Your task to perform on an android device: turn off data saver in the chrome app Image 0: 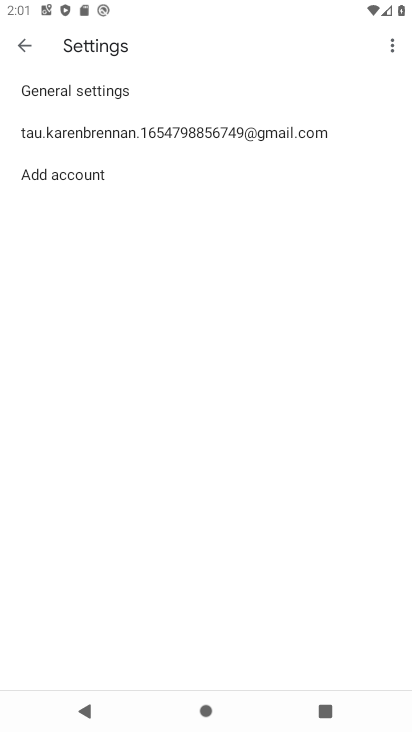
Step 0: press home button
Your task to perform on an android device: turn off data saver in the chrome app Image 1: 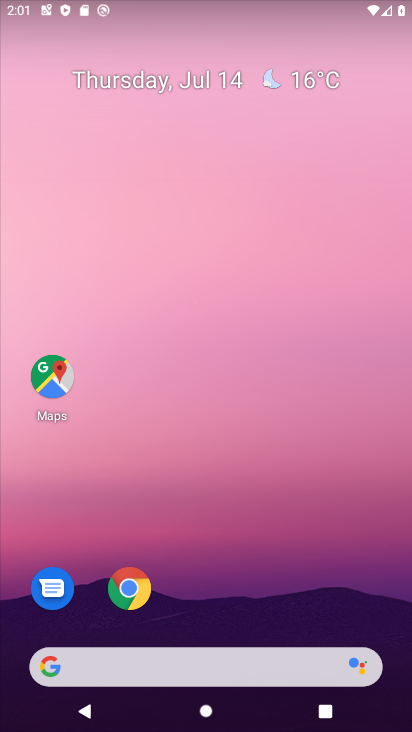
Step 1: click (154, 593)
Your task to perform on an android device: turn off data saver in the chrome app Image 2: 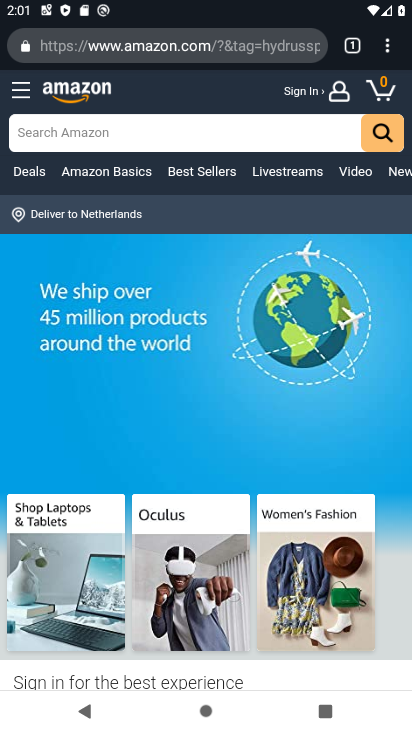
Step 2: click (391, 49)
Your task to perform on an android device: turn off data saver in the chrome app Image 3: 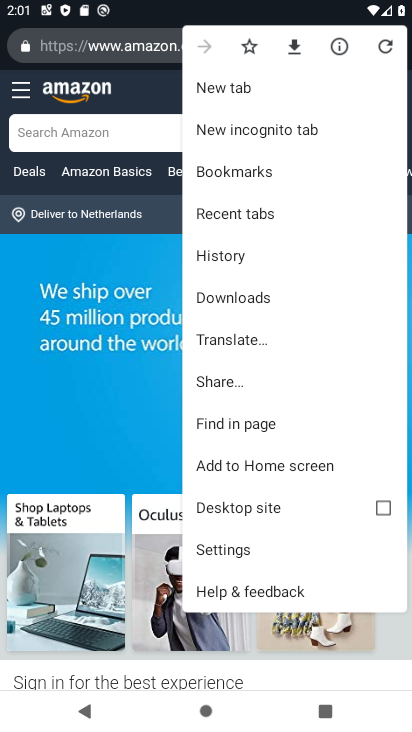
Step 3: click (279, 554)
Your task to perform on an android device: turn off data saver in the chrome app Image 4: 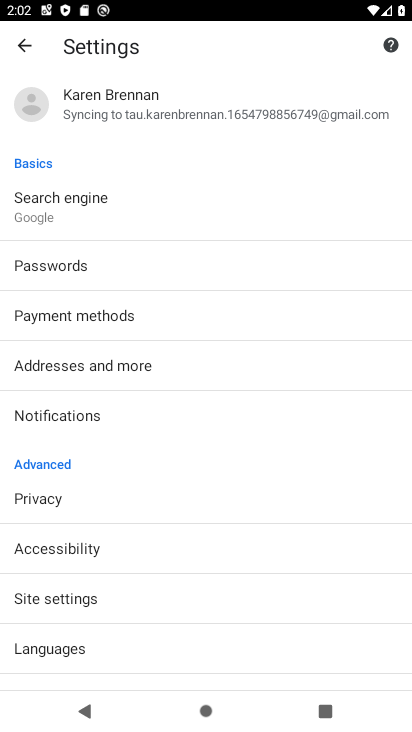
Step 4: drag from (36, 653) to (46, 538)
Your task to perform on an android device: turn off data saver in the chrome app Image 5: 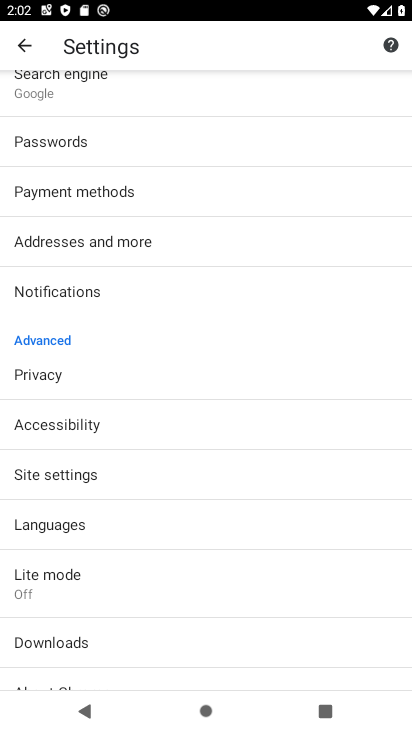
Step 5: click (77, 597)
Your task to perform on an android device: turn off data saver in the chrome app Image 6: 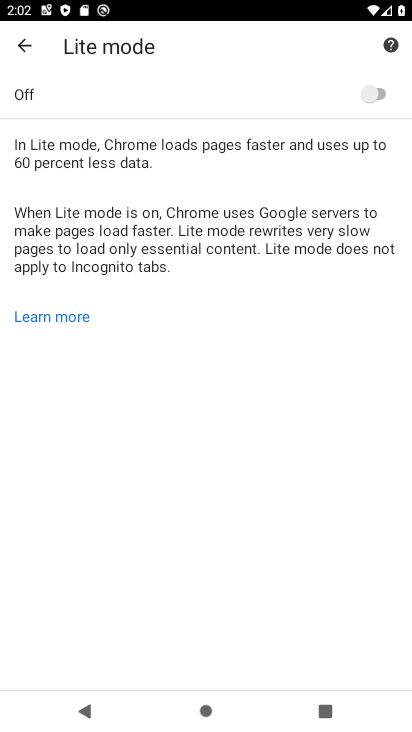
Step 6: task complete